Your task to perform on an android device: What's the weather today? Image 0: 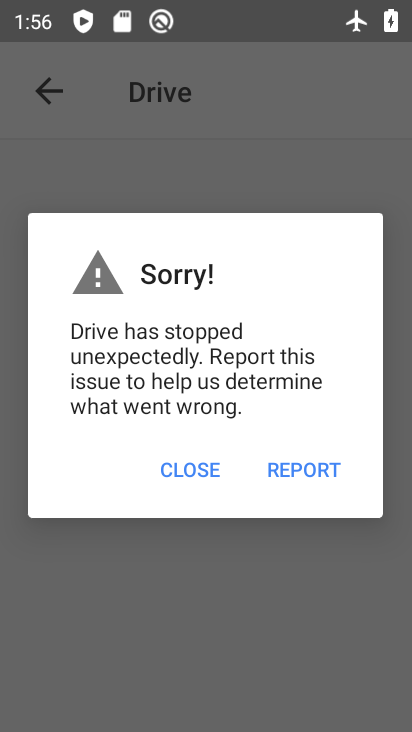
Step 0: press home button
Your task to perform on an android device: What's the weather today? Image 1: 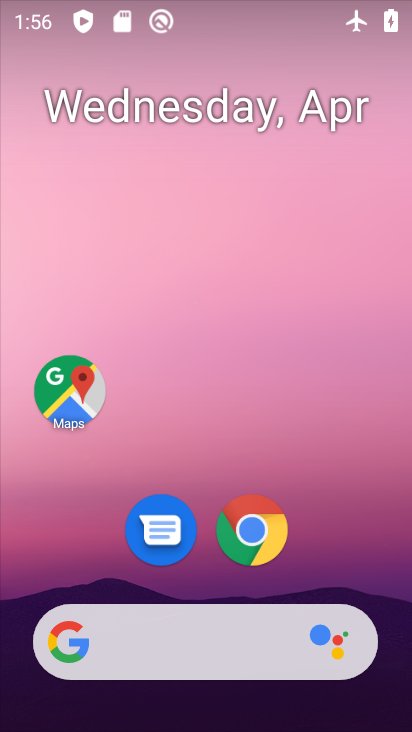
Step 1: drag from (330, 506) to (356, 68)
Your task to perform on an android device: What's the weather today? Image 2: 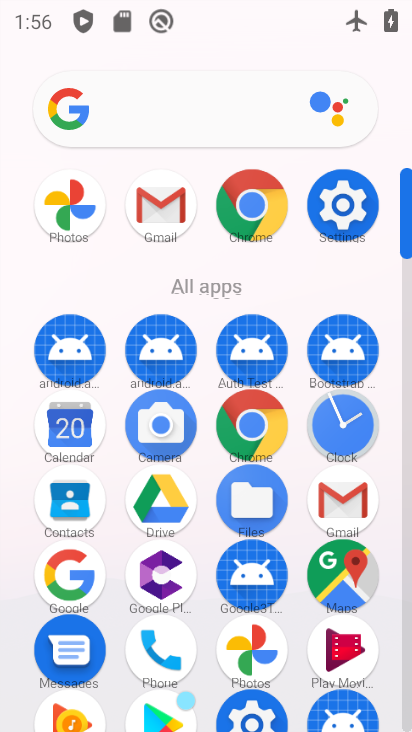
Step 2: click (253, 433)
Your task to perform on an android device: What's the weather today? Image 3: 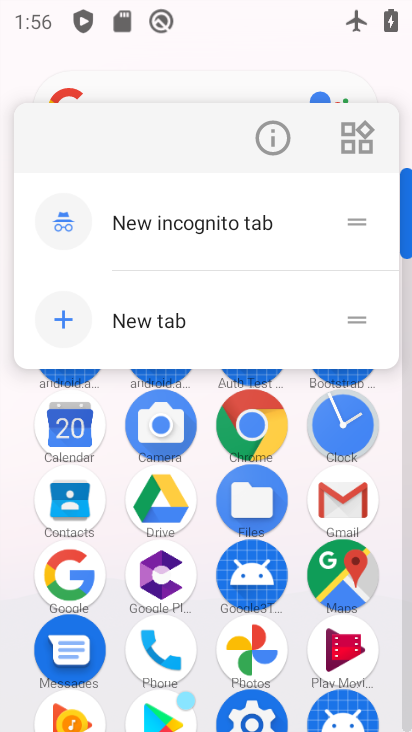
Step 3: click (253, 433)
Your task to perform on an android device: What's the weather today? Image 4: 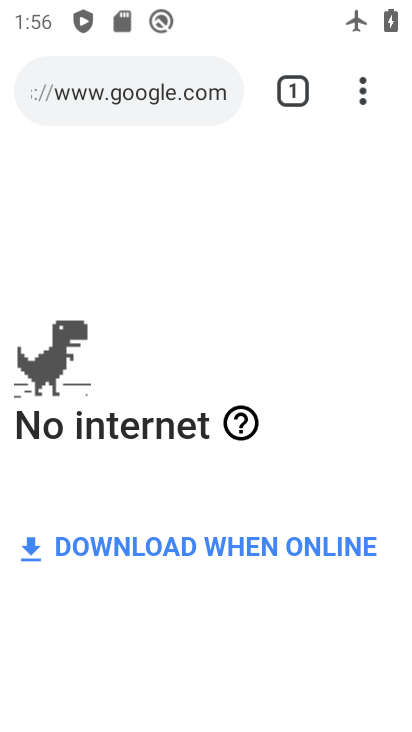
Step 4: click (184, 97)
Your task to perform on an android device: What's the weather today? Image 5: 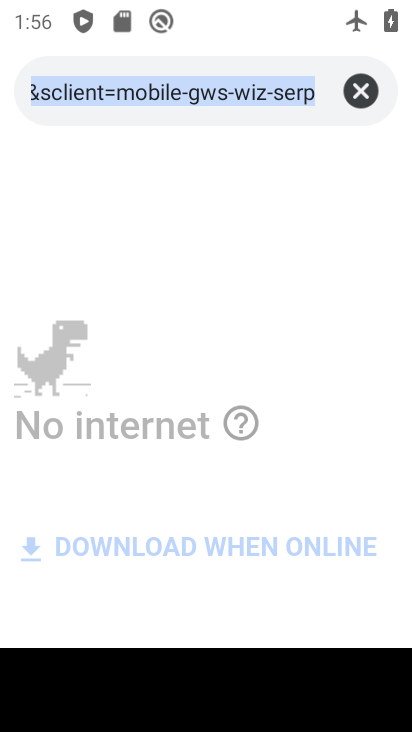
Step 5: type "weather"
Your task to perform on an android device: What's the weather today? Image 6: 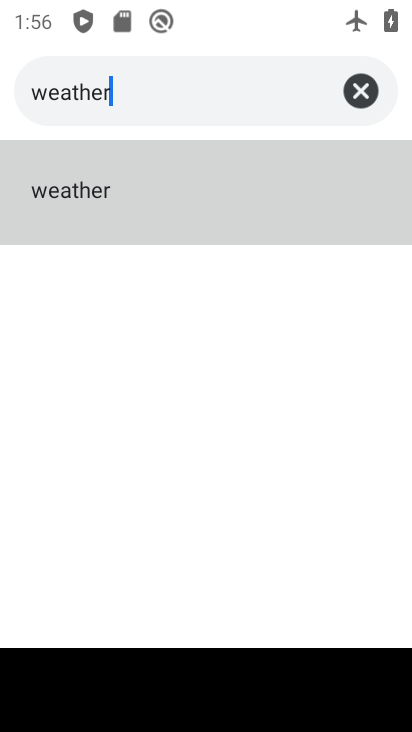
Step 6: click (78, 185)
Your task to perform on an android device: What's the weather today? Image 7: 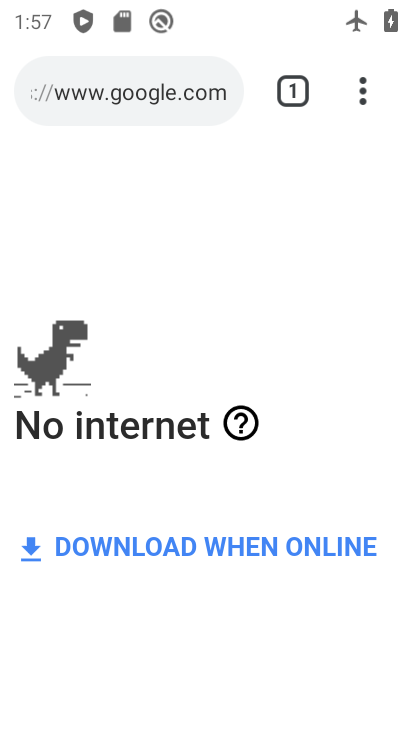
Step 7: task complete